Your task to perform on an android device: turn notification dots off Image 0: 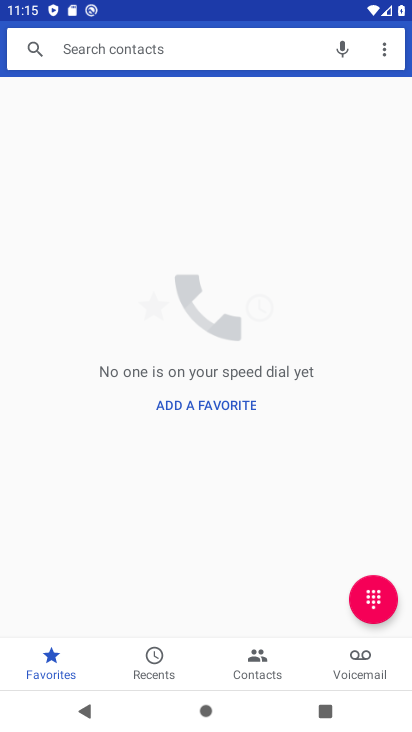
Step 0: press home button
Your task to perform on an android device: turn notification dots off Image 1: 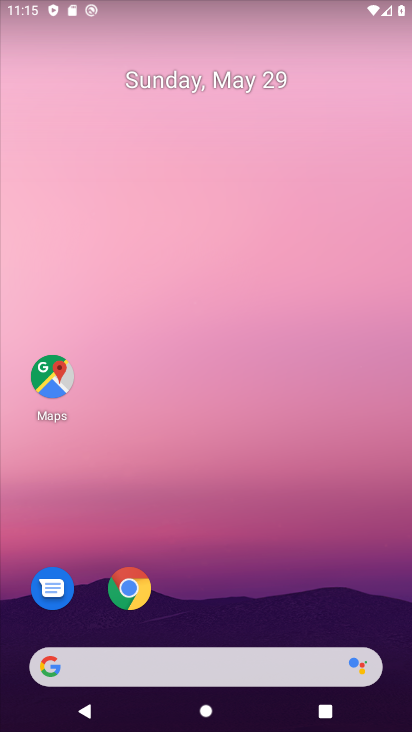
Step 1: drag from (355, 585) to (292, 0)
Your task to perform on an android device: turn notification dots off Image 2: 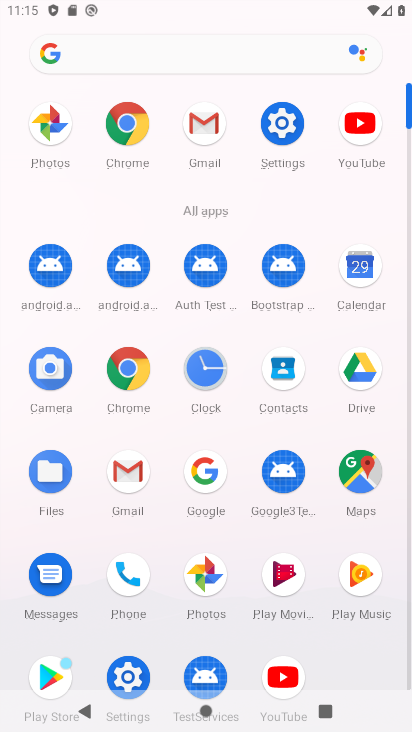
Step 2: click (277, 138)
Your task to perform on an android device: turn notification dots off Image 3: 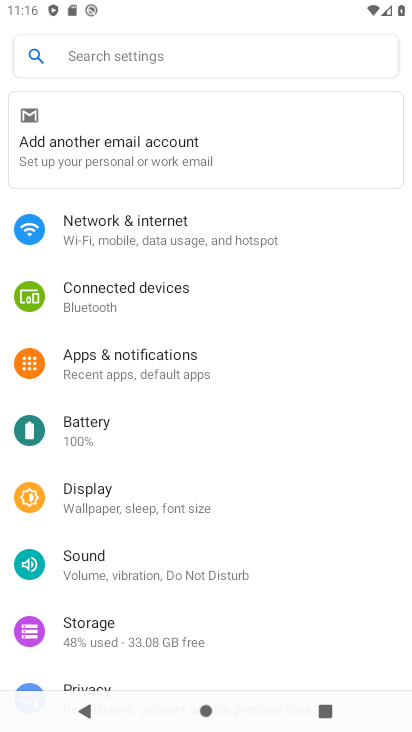
Step 3: click (136, 379)
Your task to perform on an android device: turn notification dots off Image 4: 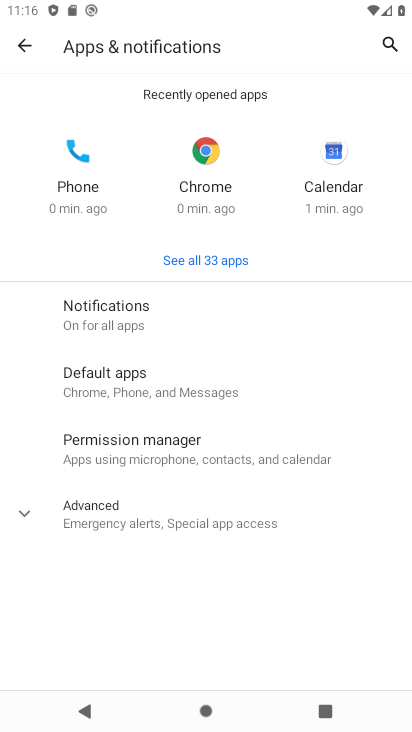
Step 4: click (129, 327)
Your task to perform on an android device: turn notification dots off Image 5: 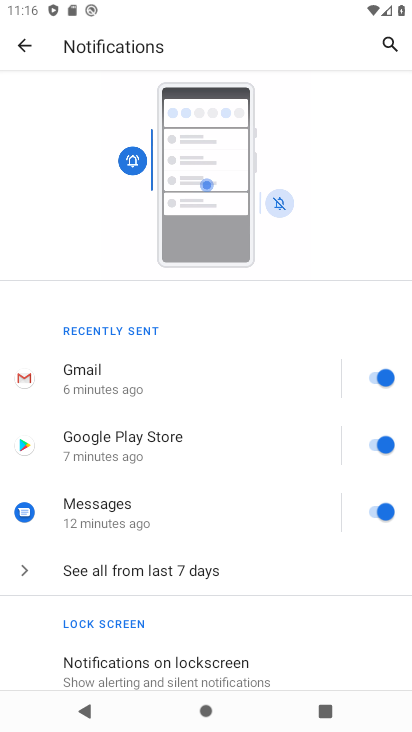
Step 5: drag from (154, 565) to (89, 169)
Your task to perform on an android device: turn notification dots off Image 6: 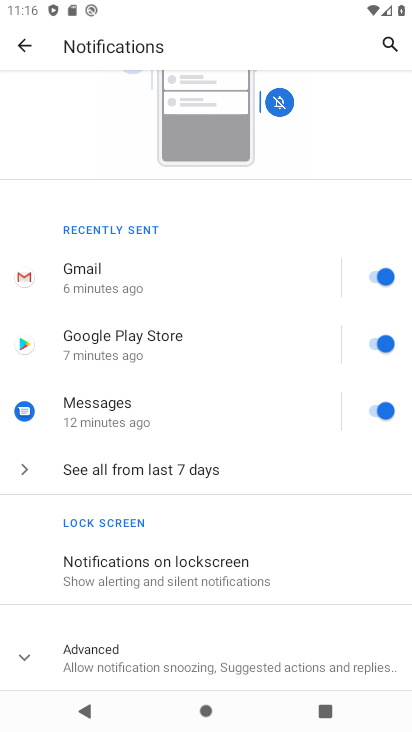
Step 6: drag from (101, 695) to (82, 212)
Your task to perform on an android device: turn notification dots off Image 7: 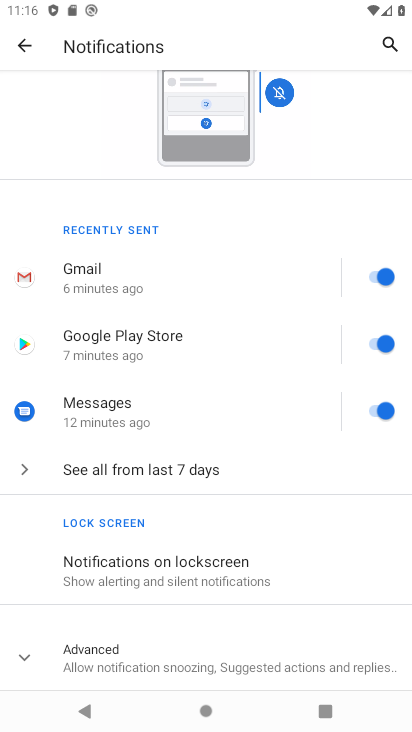
Step 7: drag from (171, 604) to (244, 166)
Your task to perform on an android device: turn notification dots off Image 8: 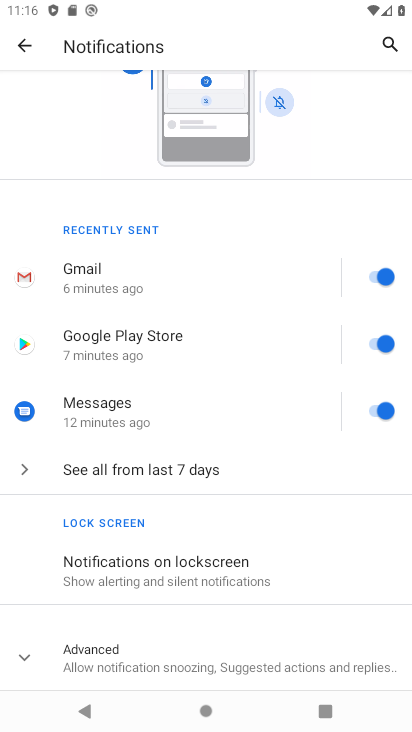
Step 8: click (123, 670)
Your task to perform on an android device: turn notification dots off Image 9: 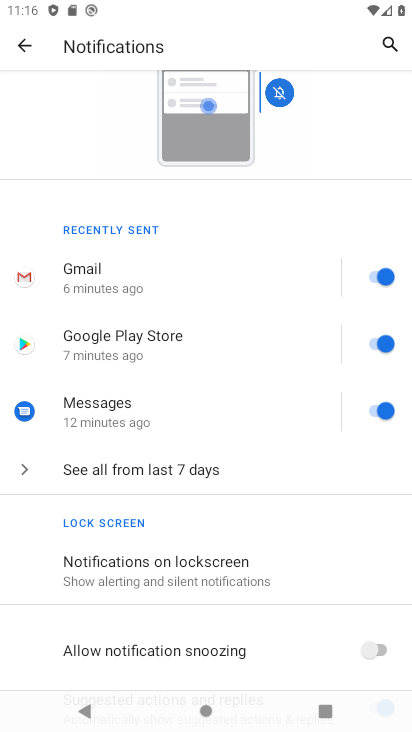
Step 9: drag from (191, 657) to (293, 202)
Your task to perform on an android device: turn notification dots off Image 10: 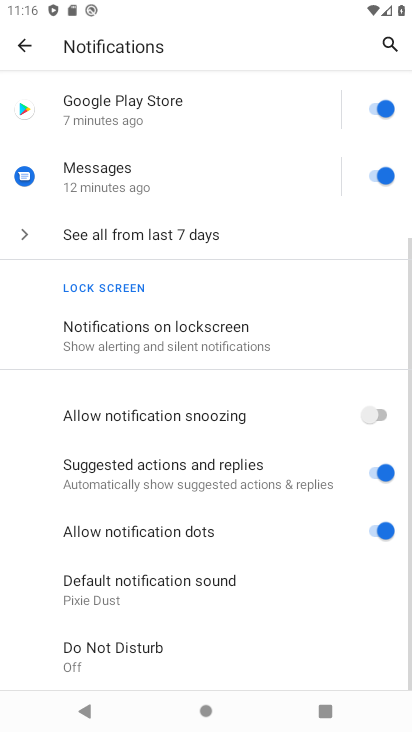
Step 10: click (366, 535)
Your task to perform on an android device: turn notification dots off Image 11: 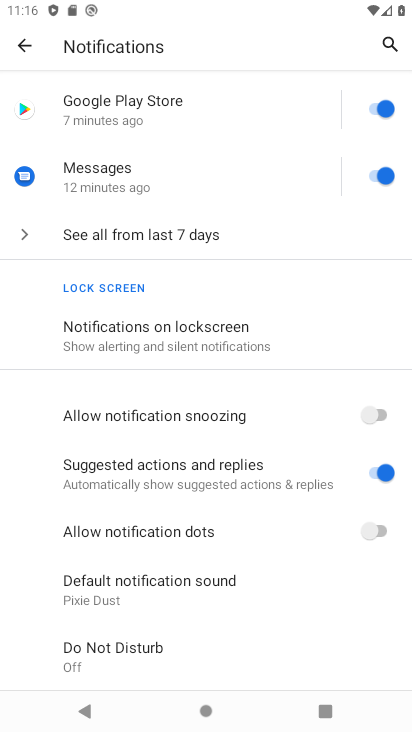
Step 11: task complete